Your task to perform on an android device: change the clock display to analog Image 0: 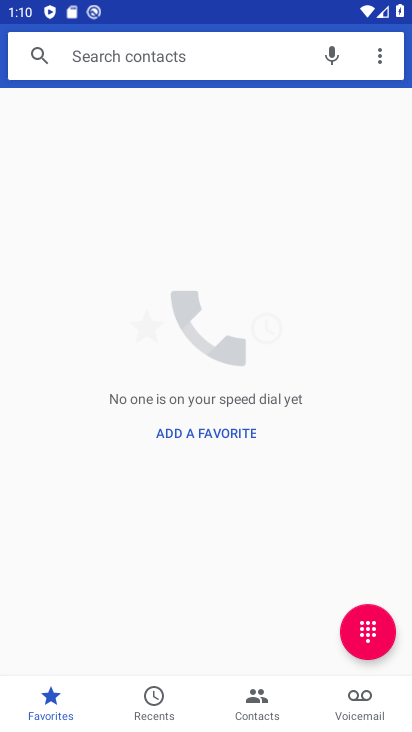
Step 0: press home button
Your task to perform on an android device: change the clock display to analog Image 1: 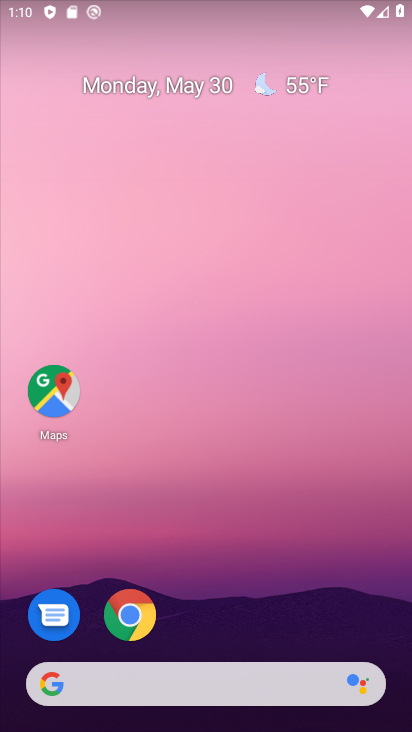
Step 1: drag from (212, 639) to (295, 202)
Your task to perform on an android device: change the clock display to analog Image 2: 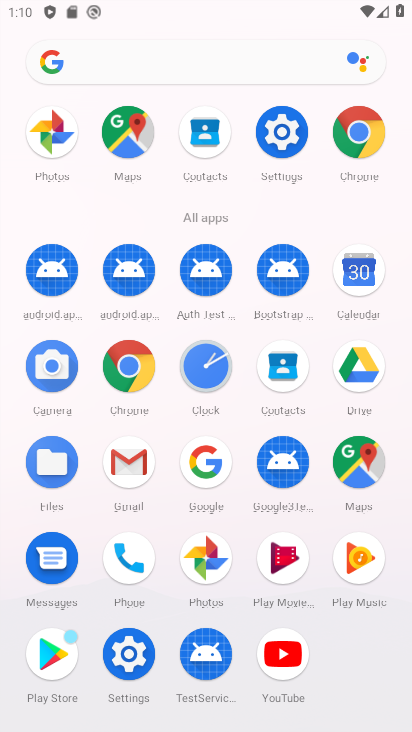
Step 2: click (214, 365)
Your task to perform on an android device: change the clock display to analog Image 3: 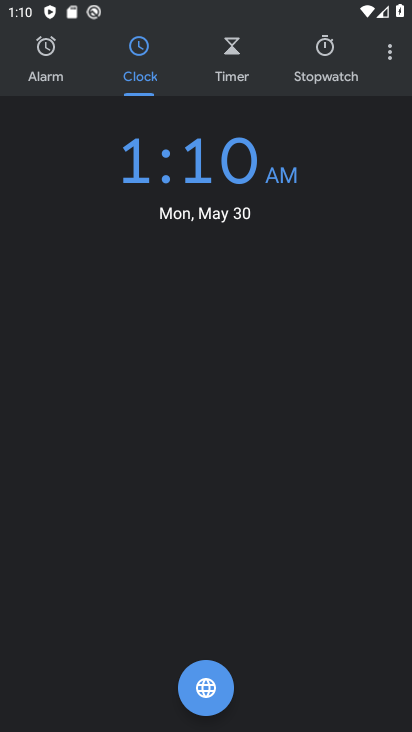
Step 3: click (385, 65)
Your task to perform on an android device: change the clock display to analog Image 4: 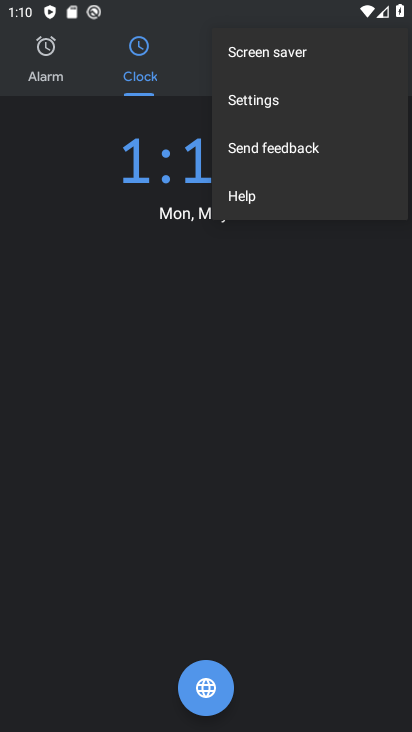
Step 4: click (315, 103)
Your task to perform on an android device: change the clock display to analog Image 5: 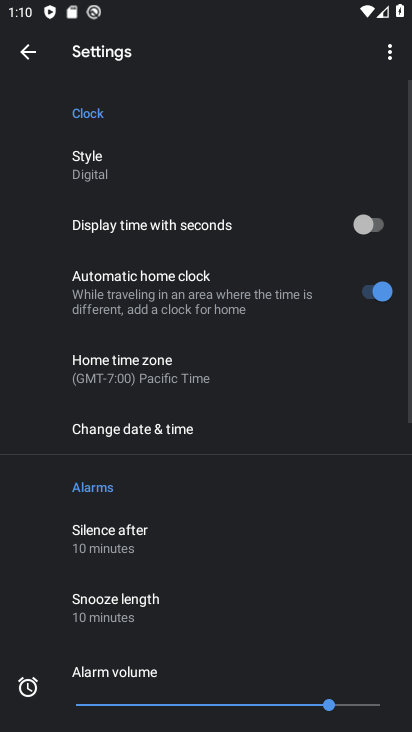
Step 5: click (271, 154)
Your task to perform on an android device: change the clock display to analog Image 6: 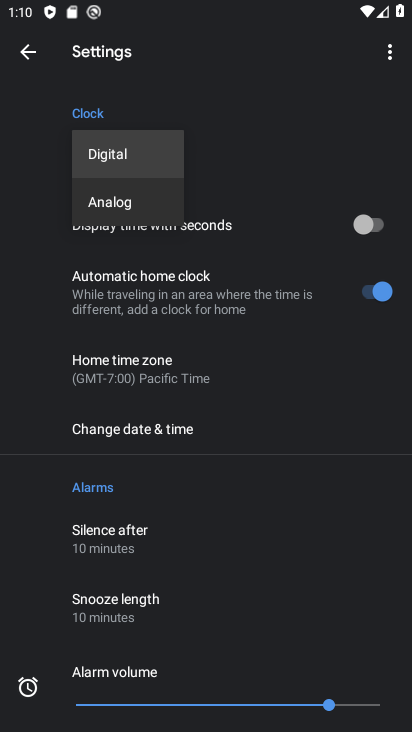
Step 6: click (107, 201)
Your task to perform on an android device: change the clock display to analog Image 7: 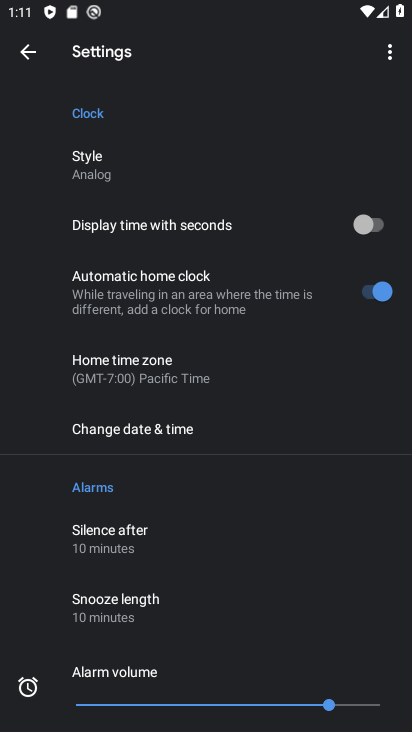
Step 7: task complete